Your task to perform on an android device: turn notification dots off Image 0: 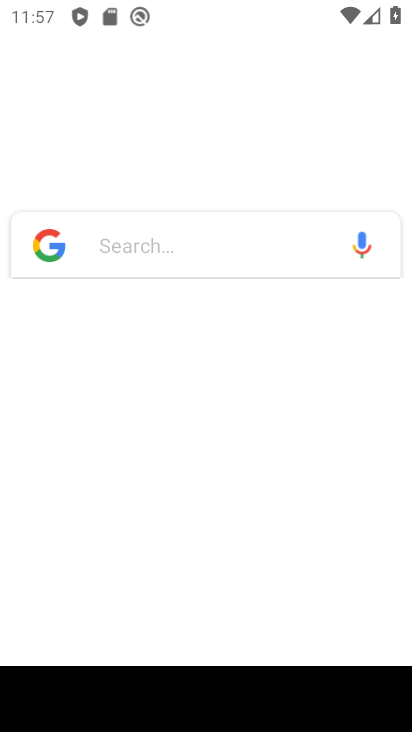
Step 0: press home button
Your task to perform on an android device: turn notification dots off Image 1: 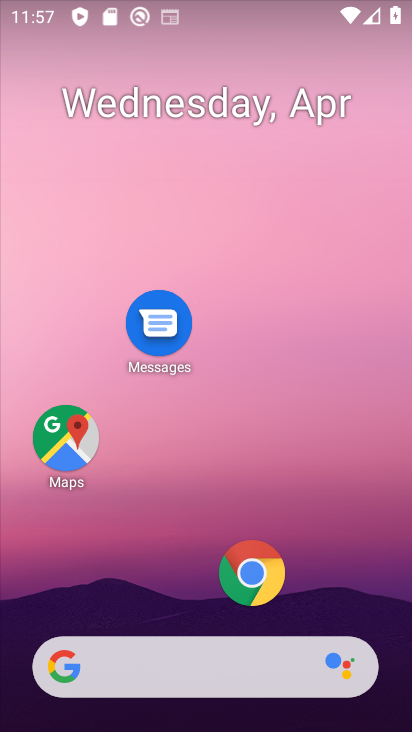
Step 1: drag from (183, 555) to (205, 19)
Your task to perform on an android device: turn notification dots off Image 2: 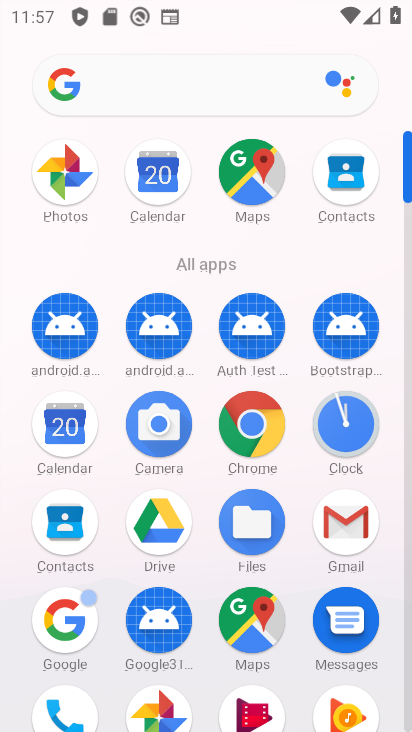
Step 2: drag from (203, 566) to (212, 233)
Your task to perform on an android device: turn notification dots off Image 3: 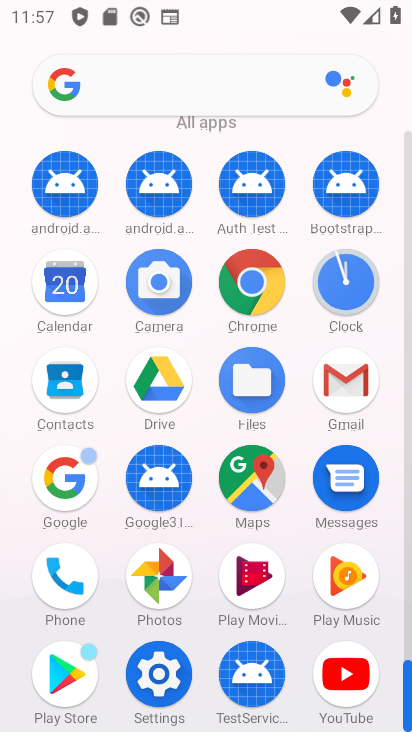
Step 3: click (151, 664)
Your task to perform on an android device: turn notification dots off Image 4: 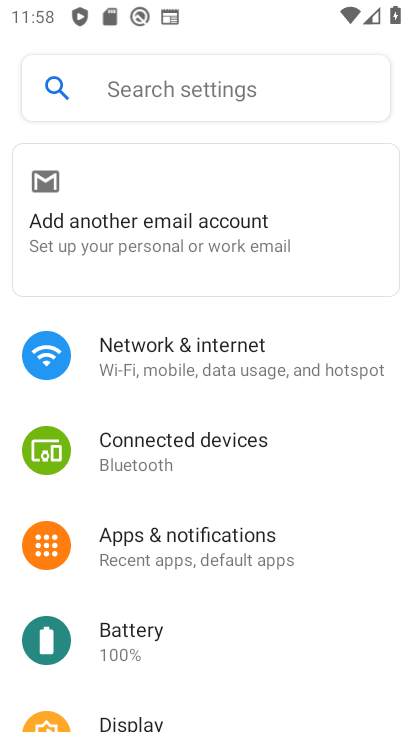
Step 4: drag from (236, 624) to (179, 211)
Your task to perform on an android device: turn notification dots off Image 5: 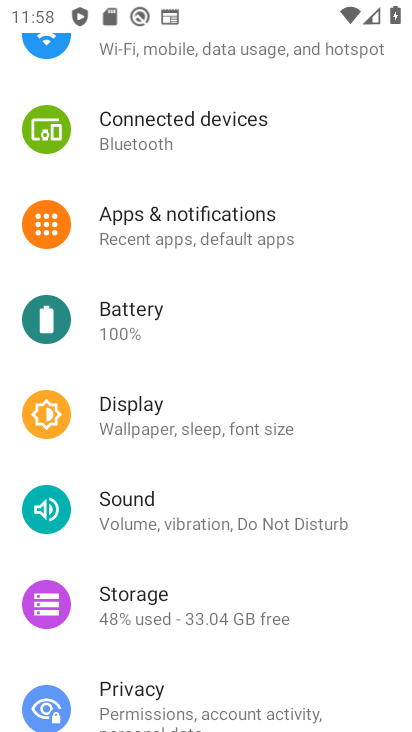
Step 5: click (185, 225)
Your task to perform on an android device: turn notification dots off Image 6: 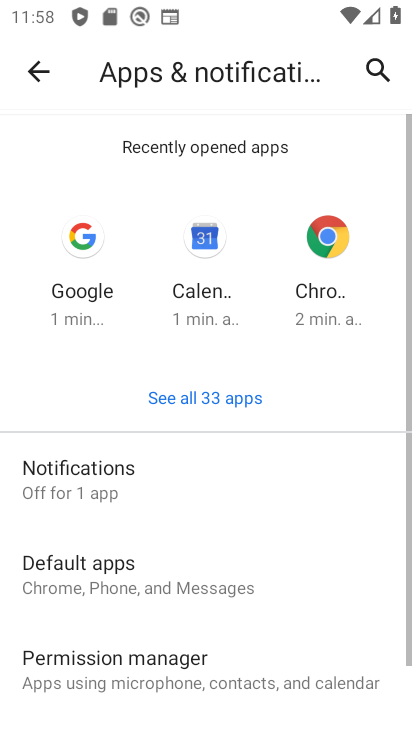
Step 6: click (148, 481)
Your task to perform on an android device: turn notification dots off Image 7: 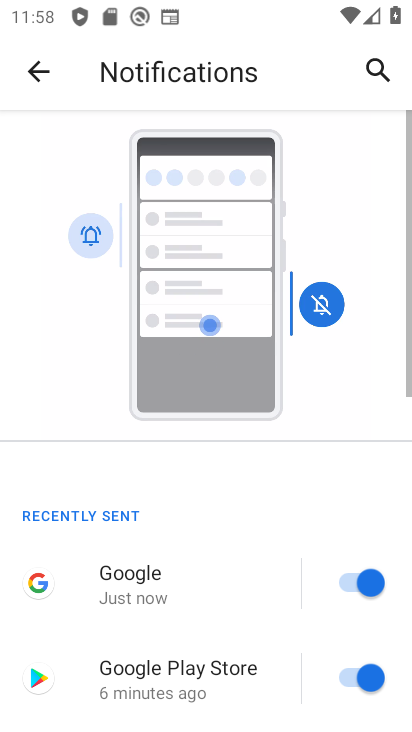
Step 7: drag from (216, 593) to (230, 164)
Your task to perform on an android device: turn notification dots off Image 8: 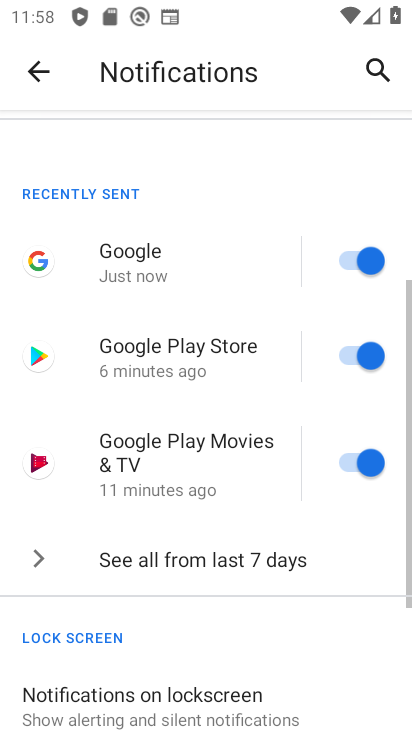
Step 8: drag from (188, 650) to (203, 147)
Your task to perform on an android device: turn notification dots off Image 9: 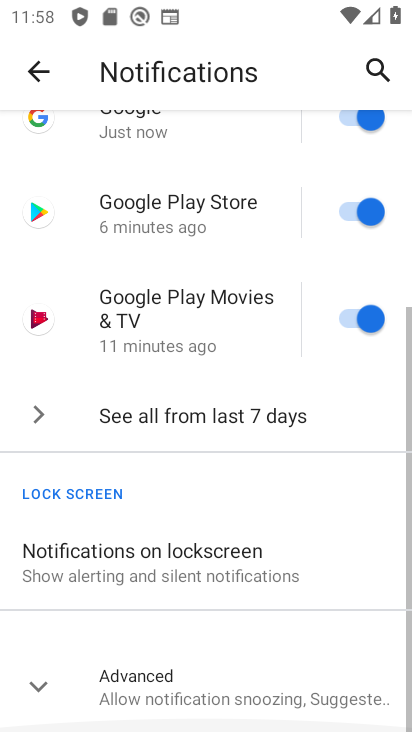
Step 9: click (152, 699)
Your task to perform on an android device: turn notification dots off Image 10: 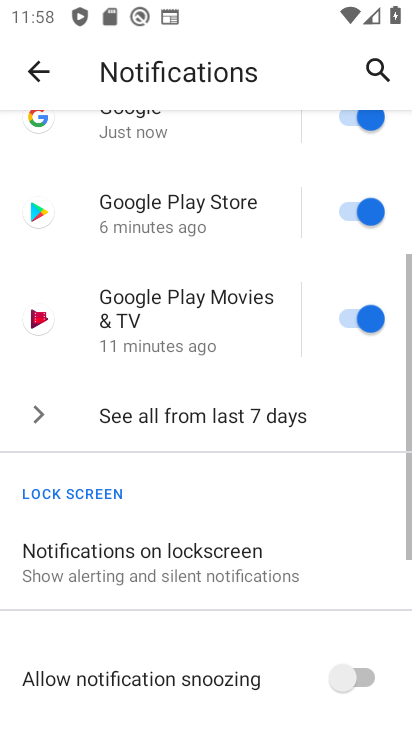
Step 10: drag from (207, 585) to (209, 373)
Your task to perform on an android device: turn notification dots off Image 11: 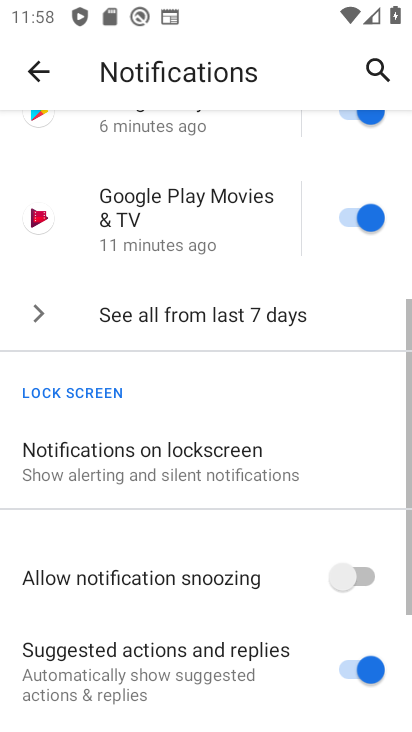
Step 11: drag from (212, 558) to (243, 339)
Your task to perform on an android device: turn notification dots off Image 12: 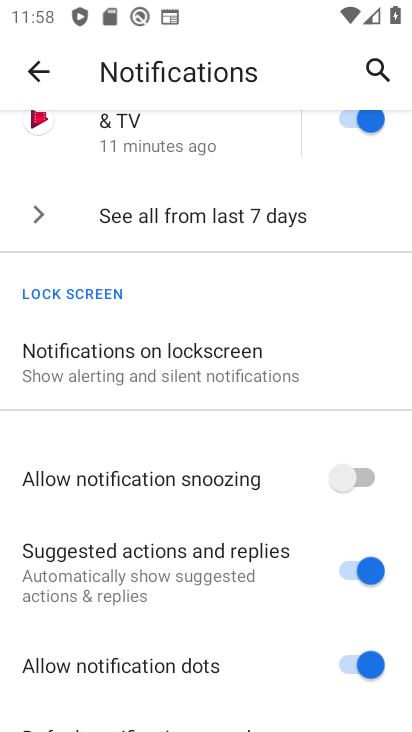
Step 12: click (369, 657)
Your task to perform on an android device: turn notification dots off Image 13: 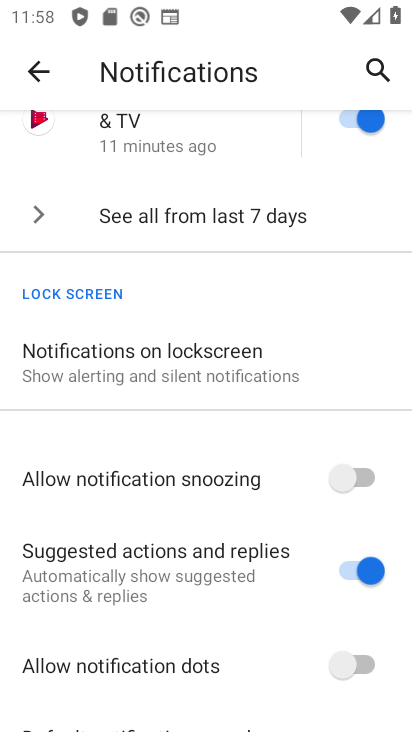
Step 13: task complete